Your task to perform on an android device: Search for pizza restaurants on Maps Image 0: 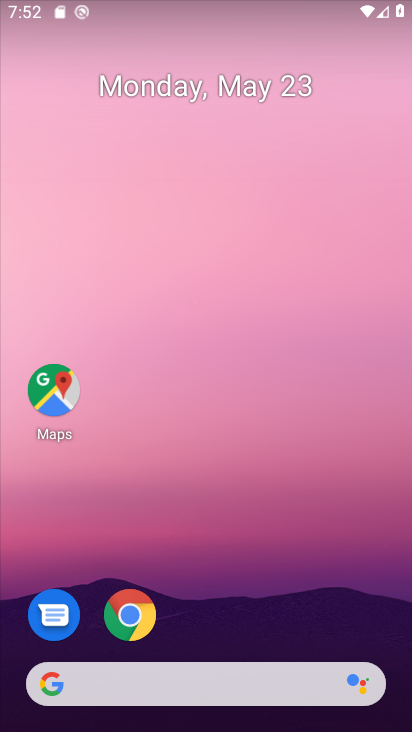
Step 0: click (78, 409)
Your task to perform on an android device: Search for pizza restaurants on Maps Image 1: 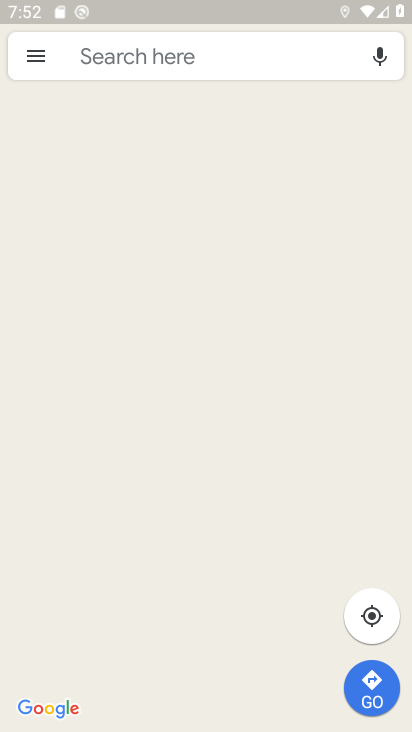
Step 1: click (237, 66)
Your task to perform on an android device: Search for pizza restaurants on Maps Image 2: 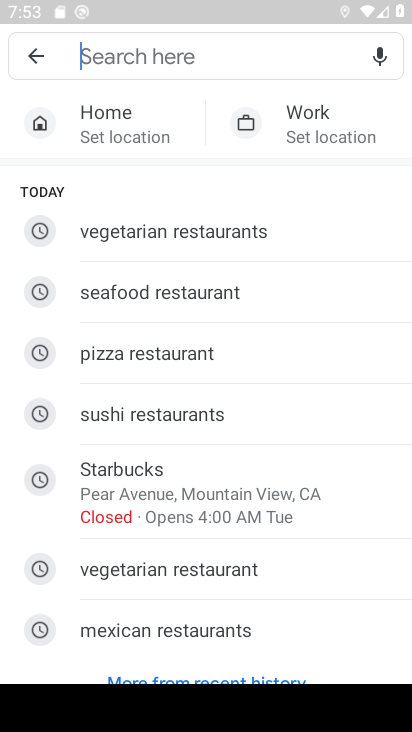
Step 2: type "pizza rest"
Your task to perform on an android device: Search for pizza restaurants on Maps Image 3: 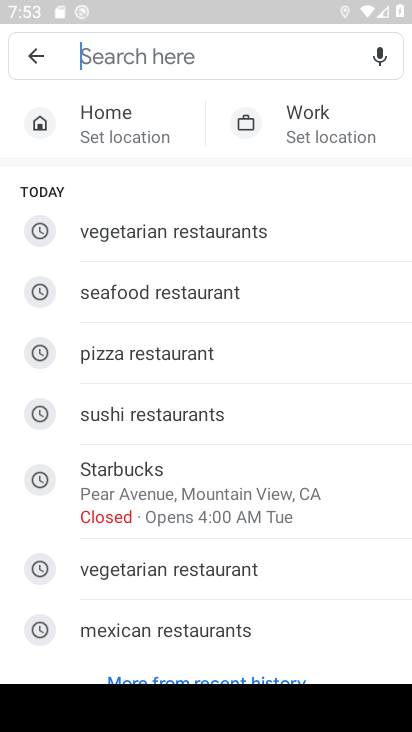
Step 3: click (297, 365)
Your task to perform on an android device: Search for pizza restaurants on Maps Image 4: 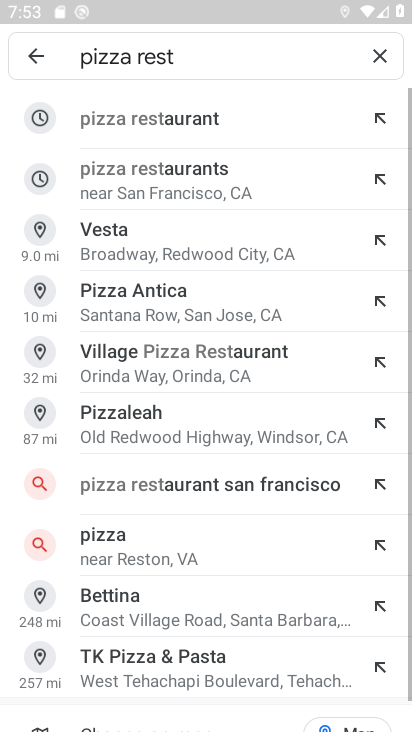
Step 4: click (232, 136)
Your task to perform on an android device: Search for pizza restaurants on Maps Image 5: 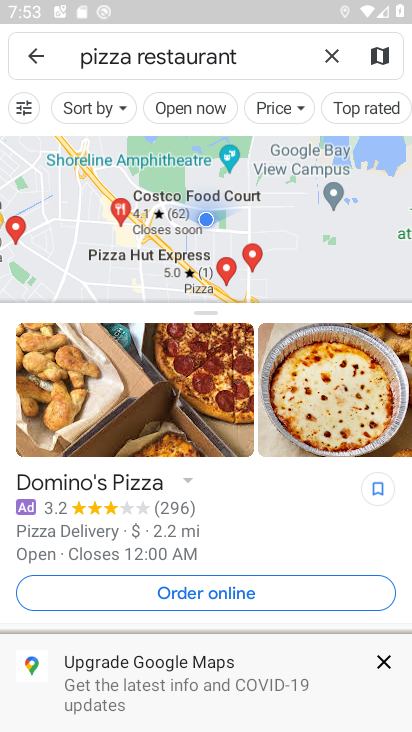
Step 5: task complete